Your task to perform on an android device: choose inbox layout in the gmail app Image 0: 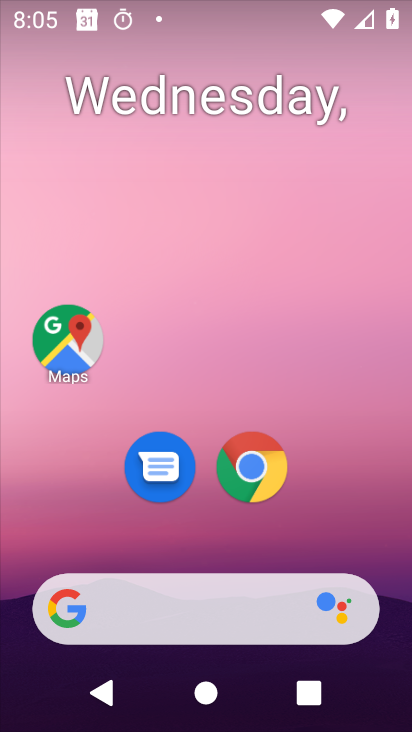
Step 0: drag from (381, 479) to (386, 196)
Your task to perform on an android device: choose inbox layout in the gmail app Image 1: 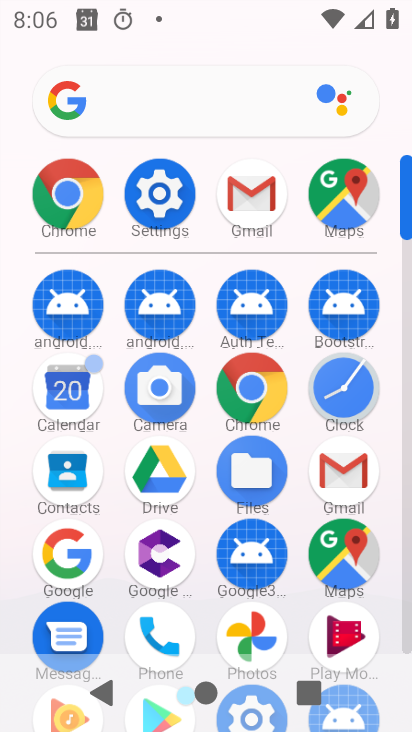
Step 1: click (341, 471)
Your task to perform on an android device: choose inbox layout in the gmail app Image 2: 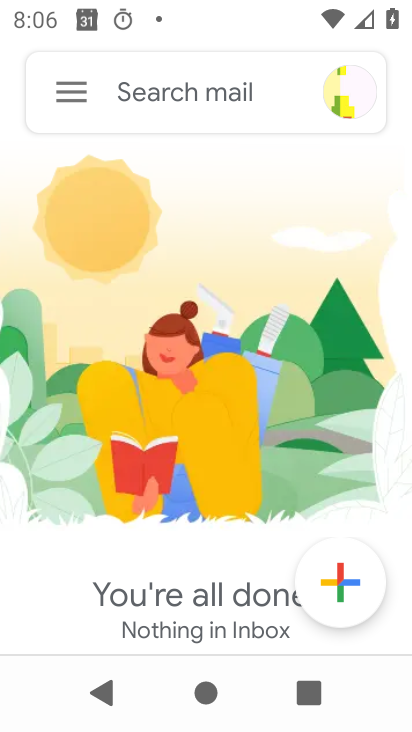
Step 2: click (66, 94)
Your task to perform on an android device: choose inbox layout in the gmail app Image 3: 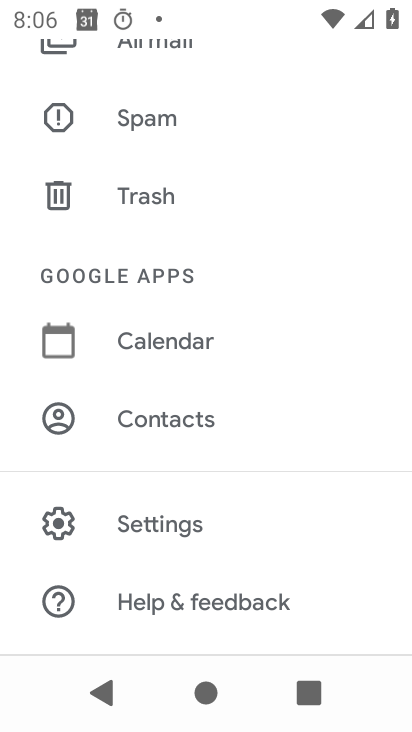
Step 3: drag from (270, 474) to (266, 571)
Your task to perform on an android device: choose inbox layout in the gmail app Image 4: 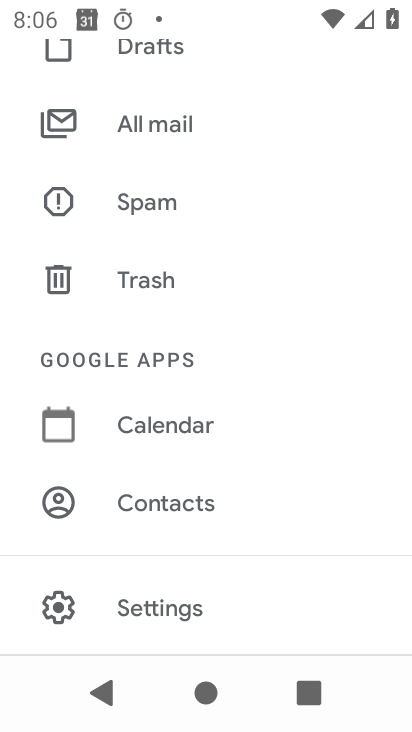
Step 4: drag from (281, 351) to (277, 552)
Your task to perform on an android device: choose inbox layout in the gmail app Image 5: 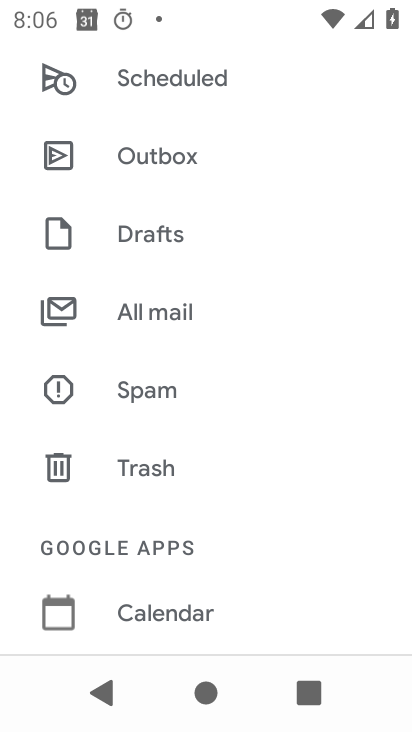
Step 5: drag from (278, 548) to (280, 592)
Your task to perform on an android device: choose inbox layout in the gmail app Image 6: 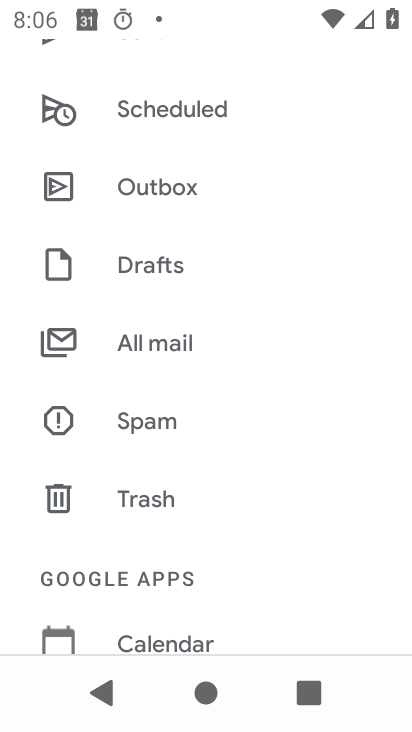
Step 6: drag from (301, 197) to (300, 491)
Your task to perform on an android device: choose inbox layout in the gmail app Image 7: 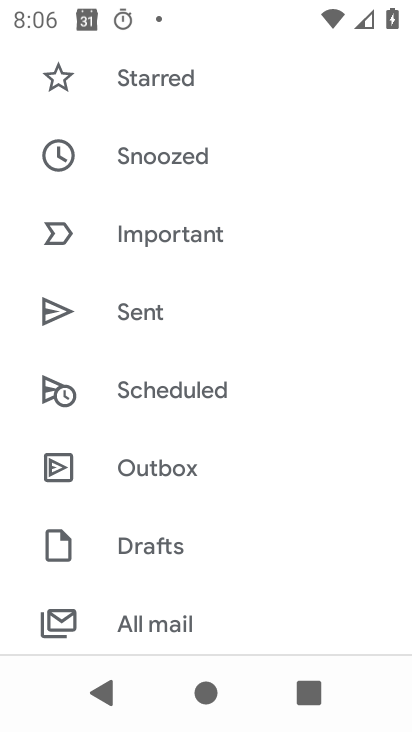
Step 7: drag from (321, 441) to (319, 581)
Your task to perform on an android device: choose inbox layout in the gmail app Image 8: 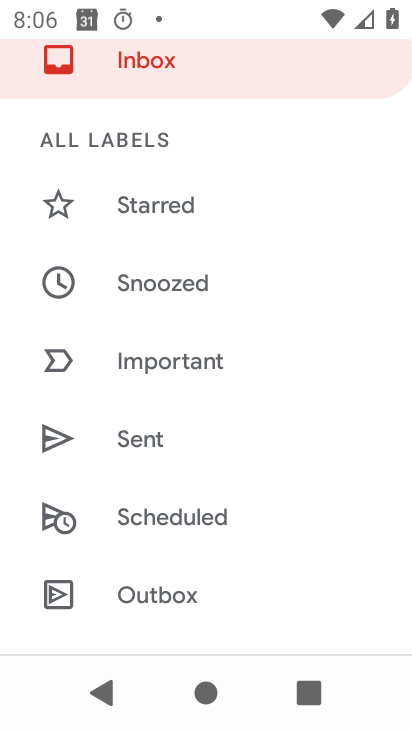
Step 8: drag from (323, 209) to (314, 468)
Your task to perform on an android device: choose inbox layout in the gmail app Image 9: 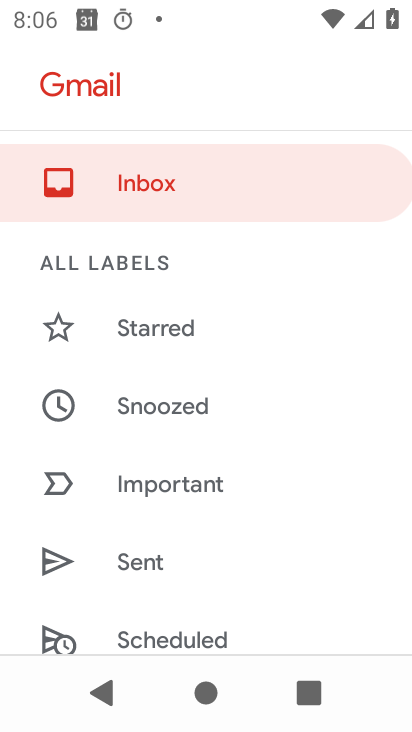
Step 9: click (147, 177)
Your task to perform on an android device: choose inbox layout in the gmail app Image 10: 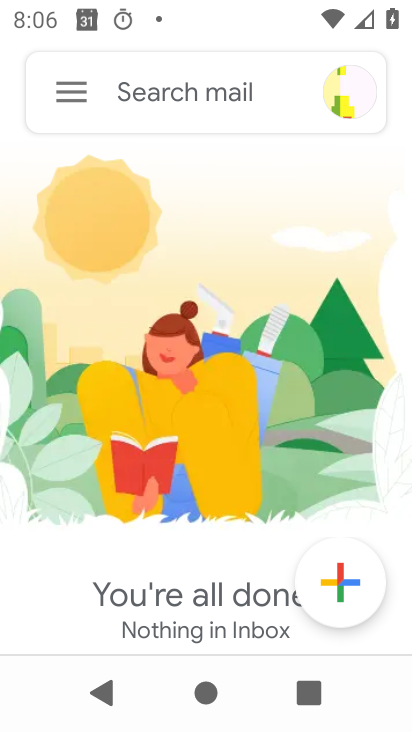
Step 10: task complete